Your task to perform on an android device: turn off airplane mode Image 0: 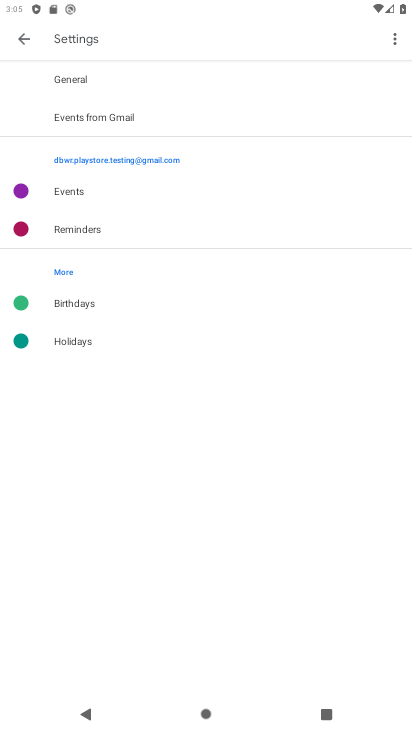
Step 0: drag from (208, 20) to (80, 645)
Your task to perform on an android device: turn off airplane mode Image 1: 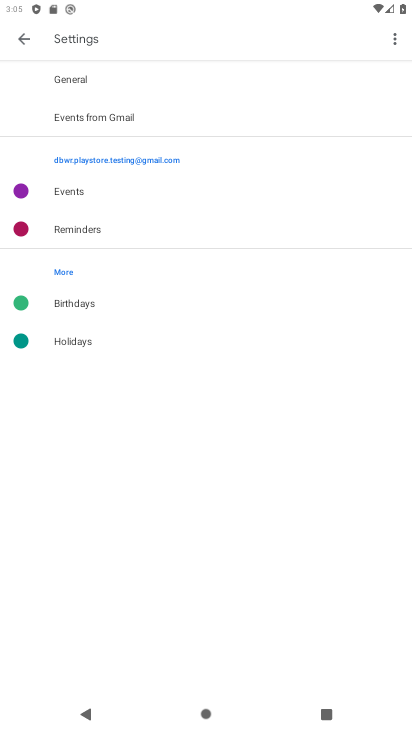
Step 1: task complete